Your task to perform on an android device: delete the emails in spam in the gmail app Image 0: 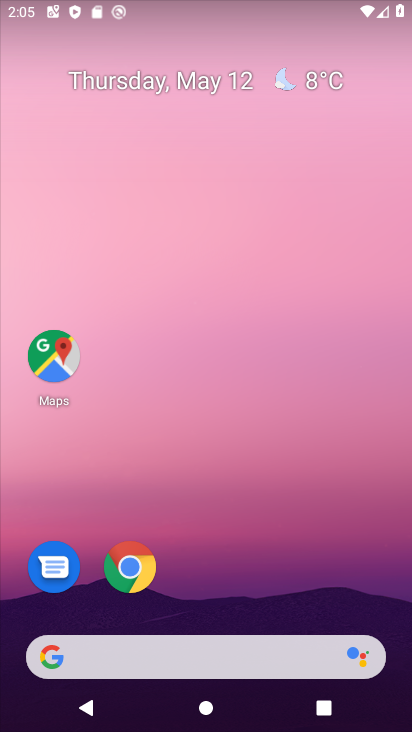
Step 0: drag from (215, 605) to (205, 237)
Your task to perform on an android device: delete the emails in spam in the gmail app Image 1: 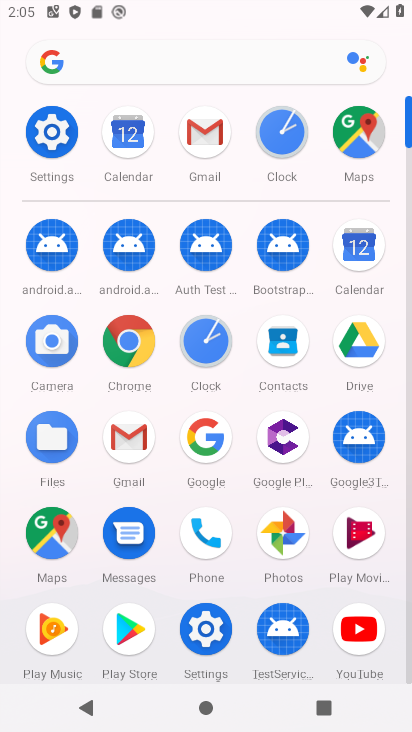
Step 1: click (128, 427)
Your task to perform on an android device: delete the emails in spam in the gmail app Image 2: 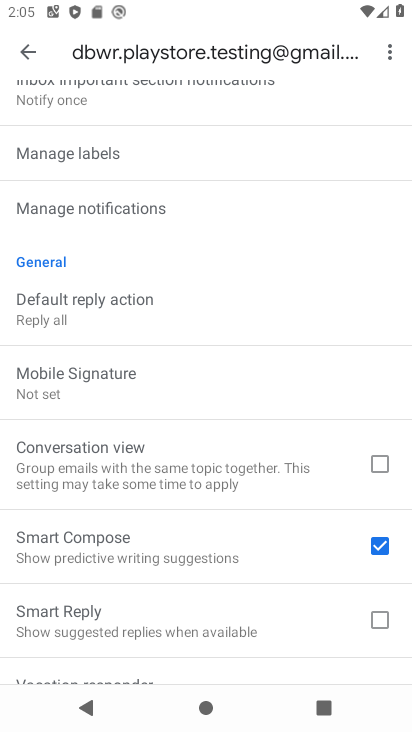
Step 2: drag from (190, 179) to (192, 668)
Your task to perform on an android device: delete the emails in spam in the gmail app Image 3: 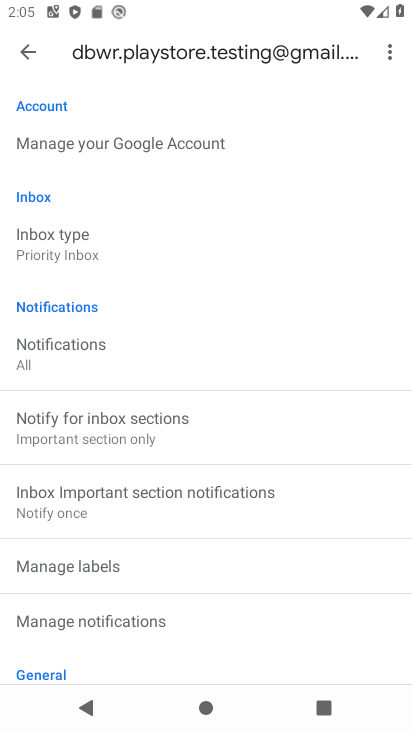
Step 3: click (24, 44)
Your task to perform on an android device: delete the emails in spam in the gmail app Image 4: 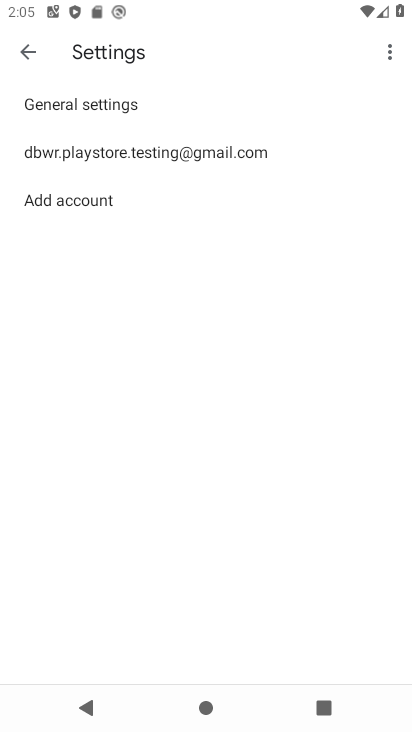
Step 4: click (23, 50)
Your task to perform on an android device: delete the emails in spam in the gmail app Image 5: 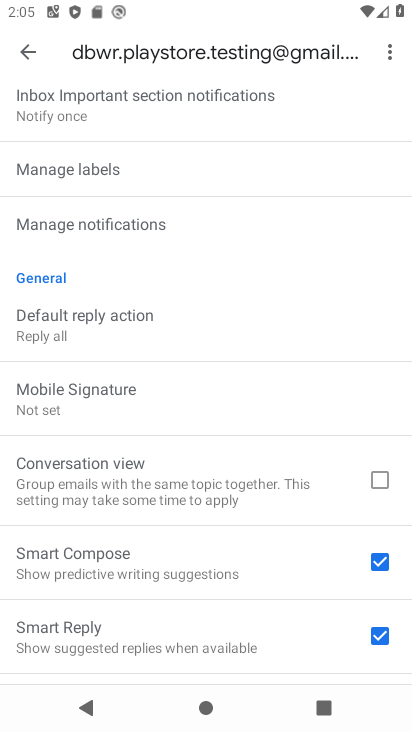
Step 5: click (34, 51)
Your task to perform on an android device: delete the emails in spam in the gmail app Image 6: 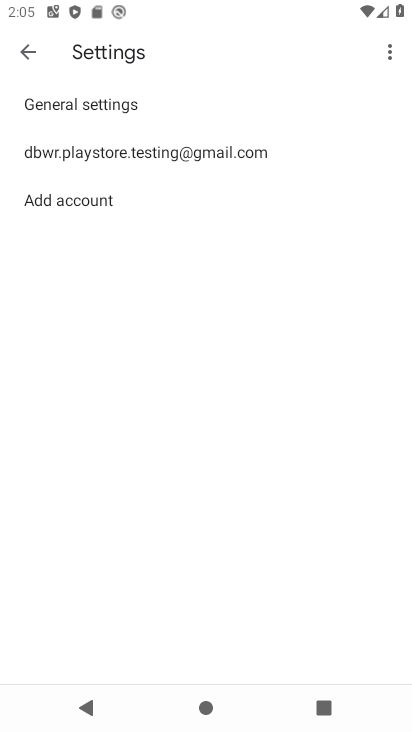
Step 6: click (33, 49)
Your task to perform on an android device: delete the emails in spam in the gmail app Image 7: 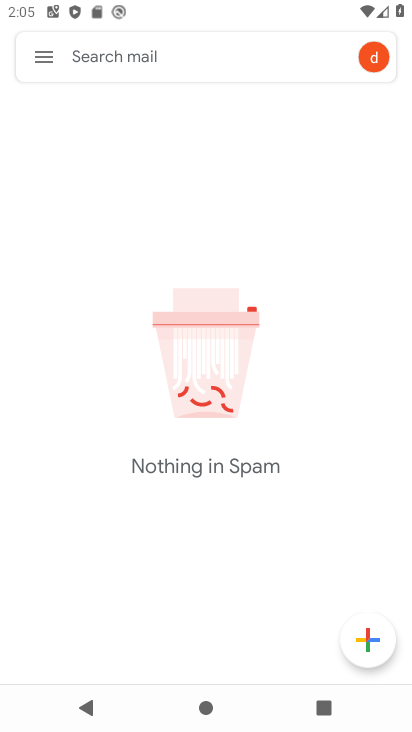
Step 7: task complete